Your task to perform on an android device: open app "Microsoft Excel" (install if not already installed) and go to login screen Image 0: 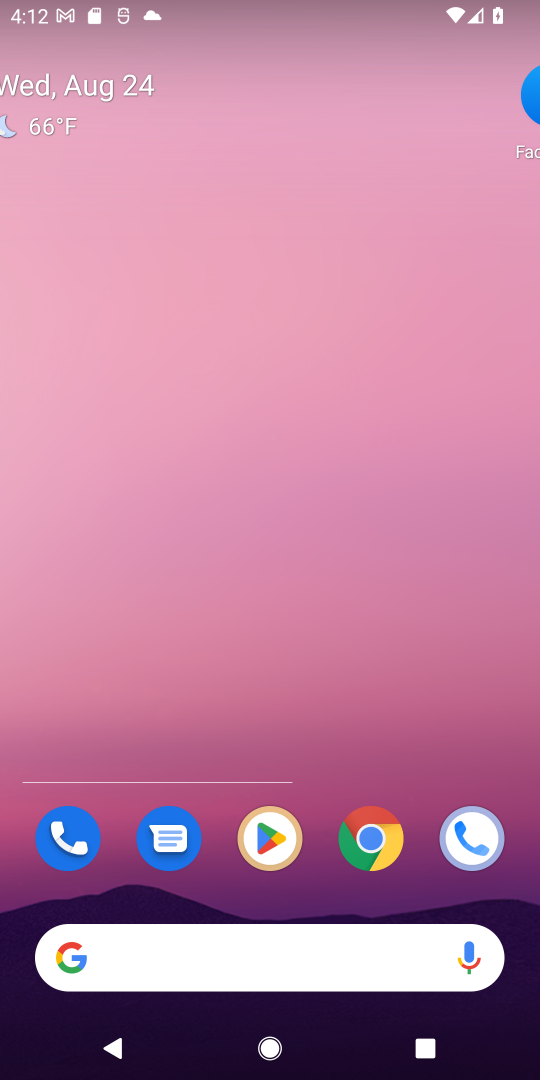
Step 0: press home button
Your task to perform on an android device: open app "Microsoft Excel" (install if not already installed) and go to login screen Image 1: 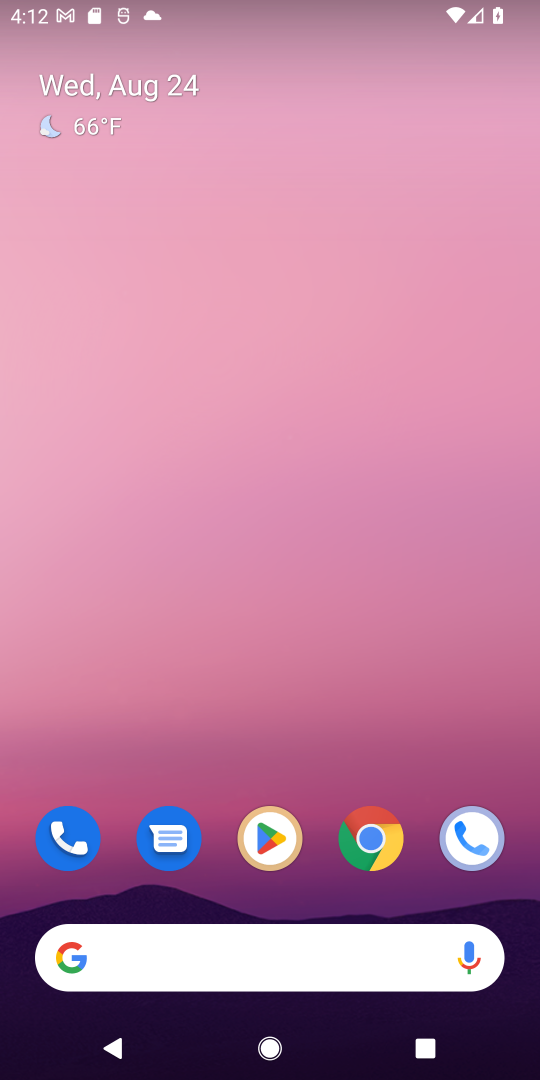
Step 1: click (272, 828)
Your task to perform on an android device: open app "Microsoft Excel" (install if not already installed) and go to login screen Image 2: 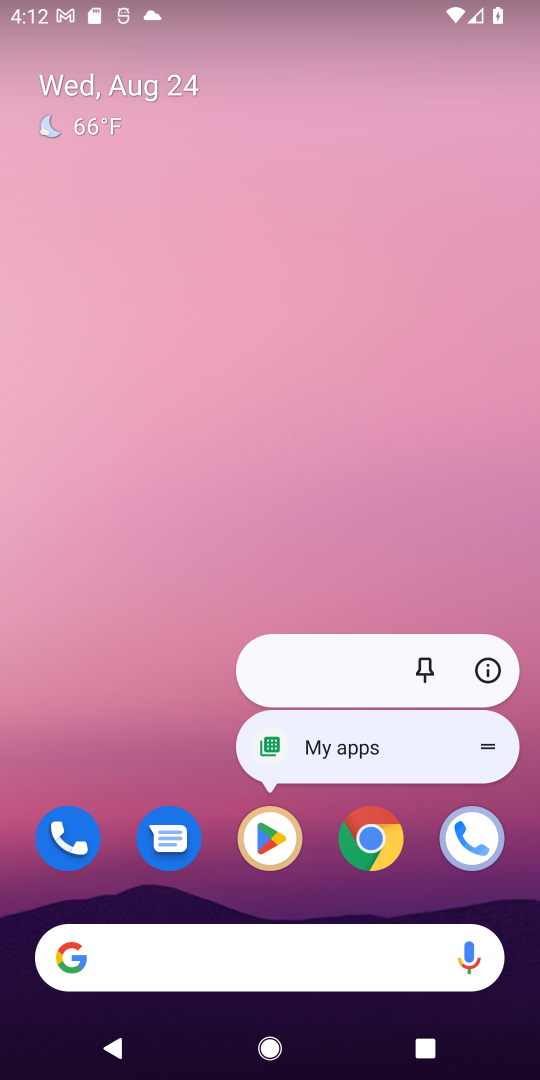
Step 2: click (261, 826)
Your task to perform on an android device: open app "Microsoft Excel" (install if not already installed) and go to login screen Image 3: 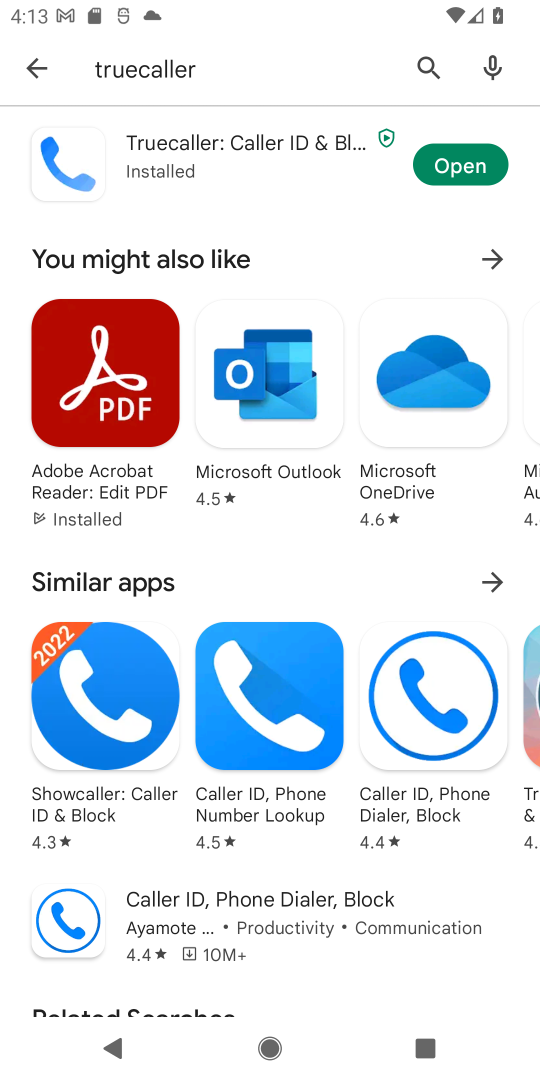
Step 3: click (422, 70)
Your task to perform on an android device: open app "Microsoft Excel" (install if not already installed) and go to login screen Image 4: 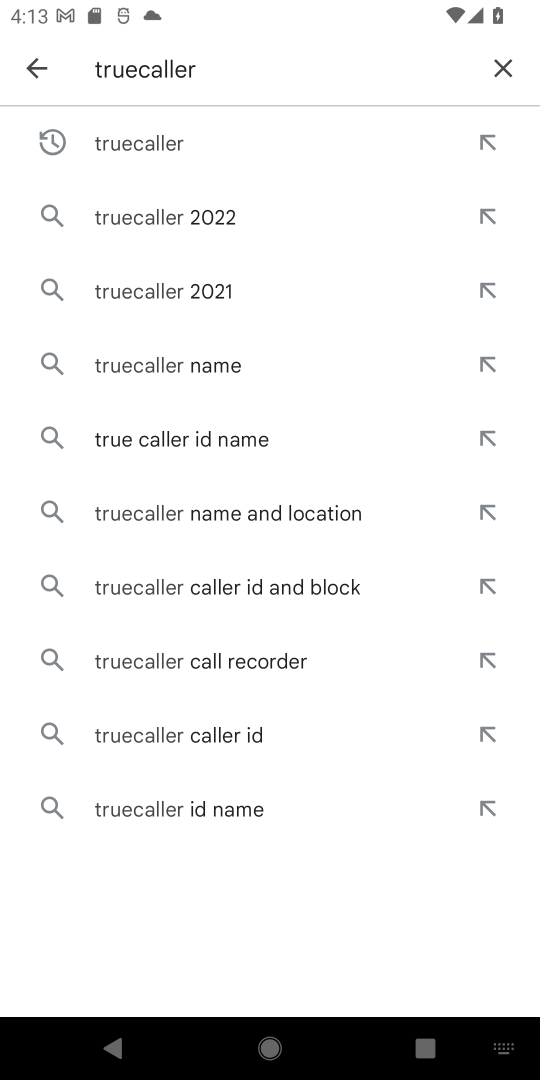
Step 4: click (502, 68)
Your task to perform on an android device: open app "Microsoft Excel" (install if not already installed) and go to login screen Image 5: 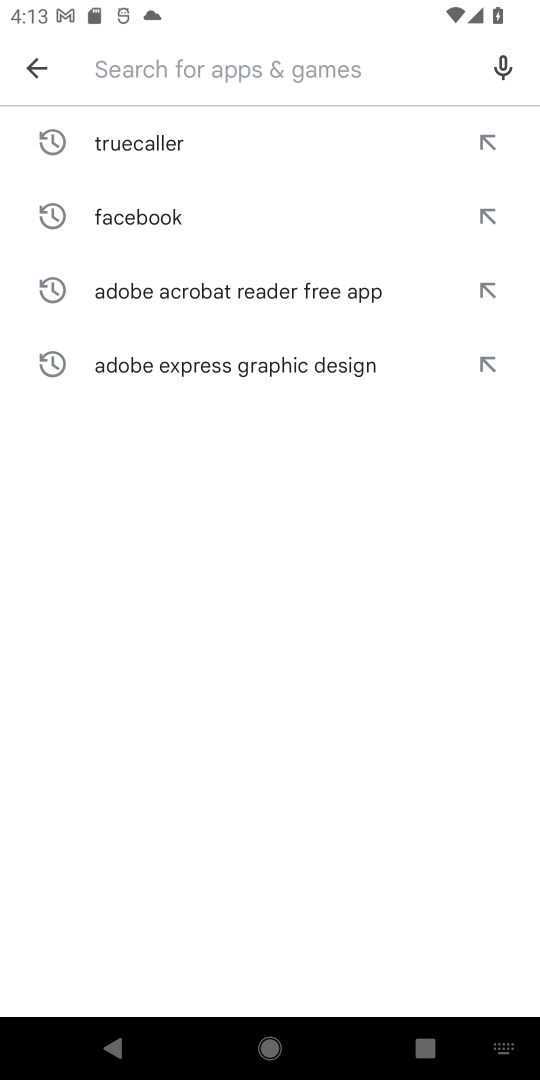
Step 5: type "Microsoft Excel"
Your task to perform on an android device: open app "Microsoft Excel" (install if not already installed) and go to login screen Image 6: 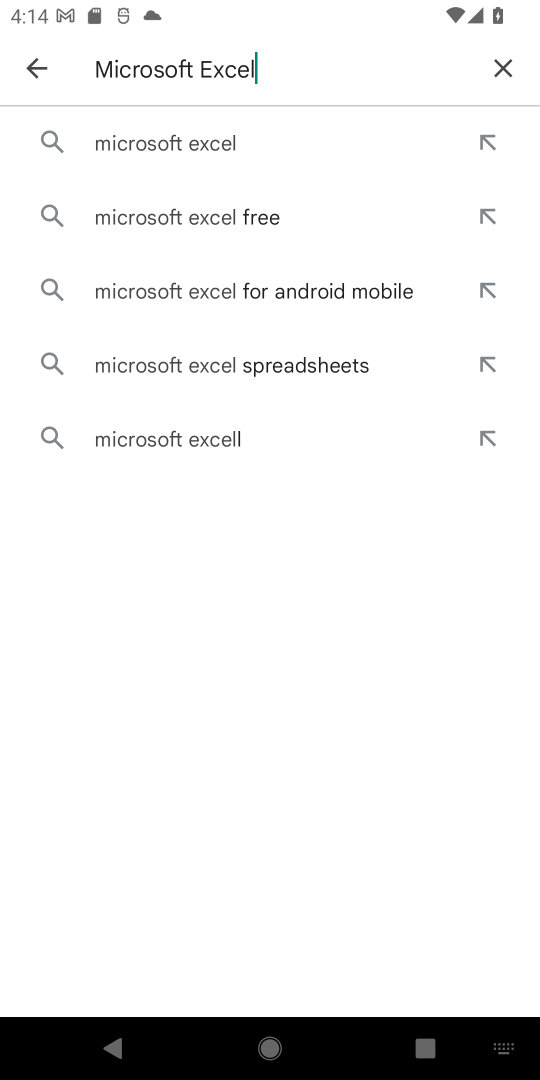
Step 6: click (255, 143)
Your task to perform on an android device: open app "Microsoft Excel" (install if not already installed) and go to login screen Image 7: 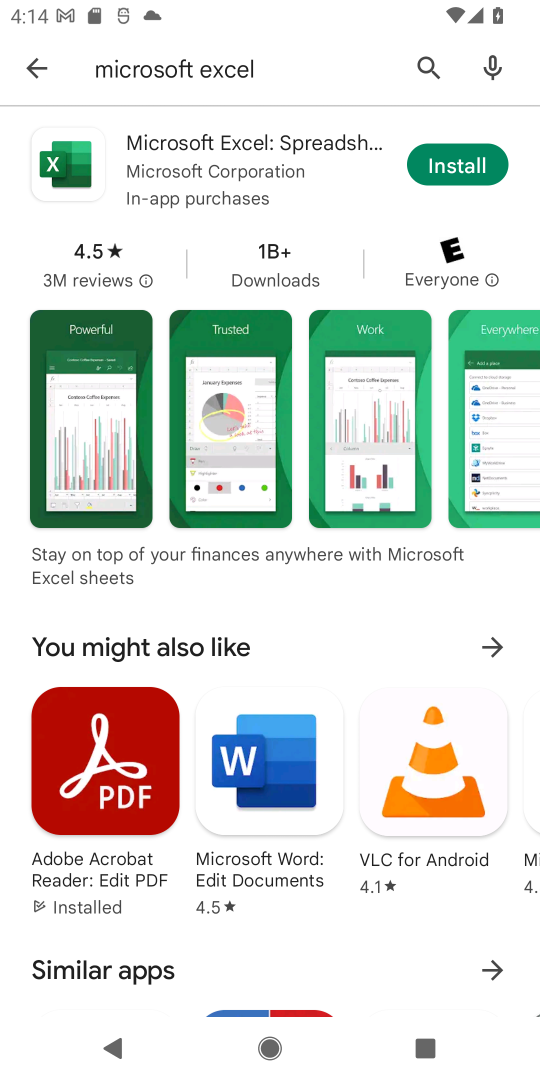
Step 7: click (462, 162)
Your task to perform on an android device: open app "Microsoft Excel" (install if not already installed) and go to login screen Image 8: 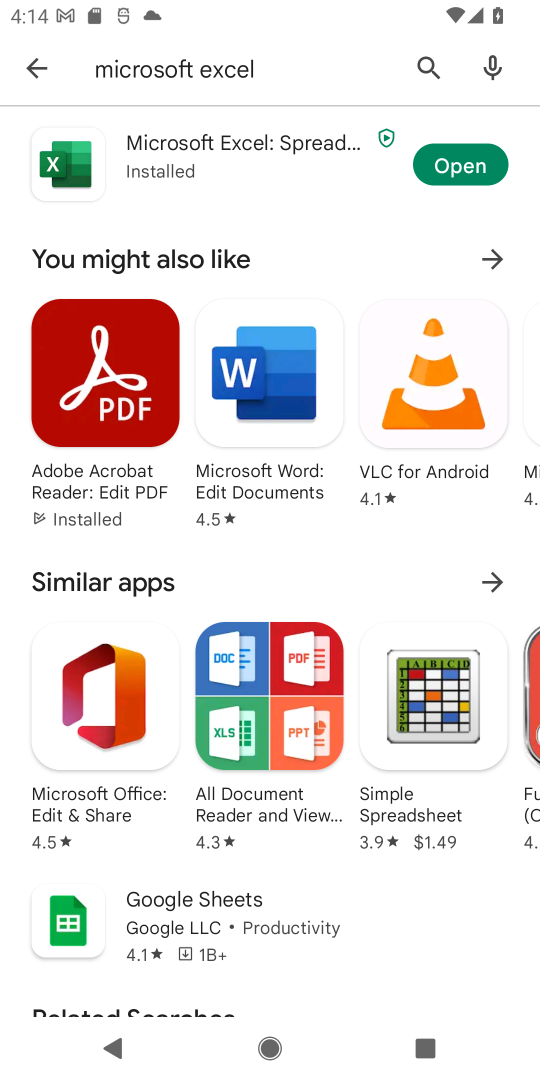
Step 8: click (457, 161)
Your task to perform on an android device: open app "Microsoft Excel" (install if not already installed) and go to login screen Image 9: 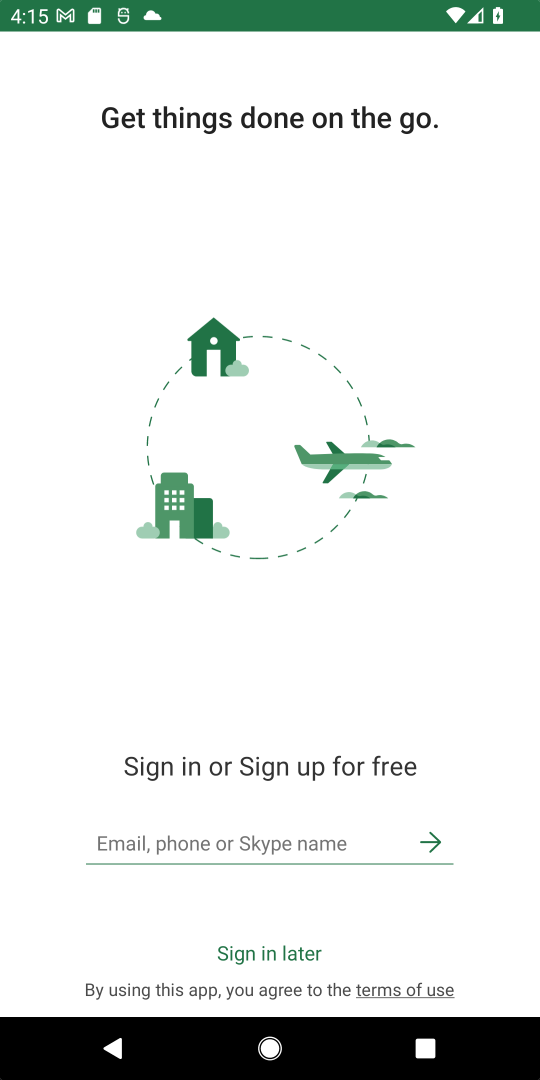
Step 9: task complete